Your task to perform on an android device: Clear the shopping cart on walmart.com. Add "dell xps" to the cart on walmart.com Image 0: 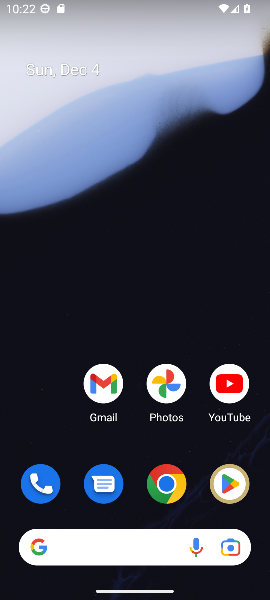
Step 0: click (163, 490)
Your task to perform on an android device: Clear the shopping cart on walmart.com. Add "dell xps" to the cart on walmart.com Image 1: 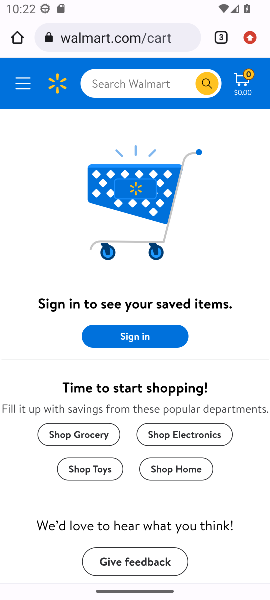
Step 1: click (244, 80)
Your task to perform on an android device: Clear the shopping cart on walmart.com. Add "dell xps" to the cart on walmart.com Image 2: 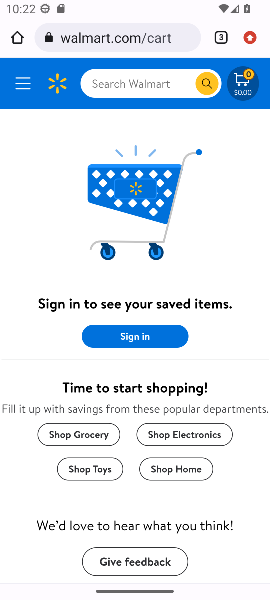
Step 2: click (105, 87)
Your task to perform on an android device: Clear the shopping cart on walmart.com. Add "dell xps" to the cart on walmart.com Image 3: 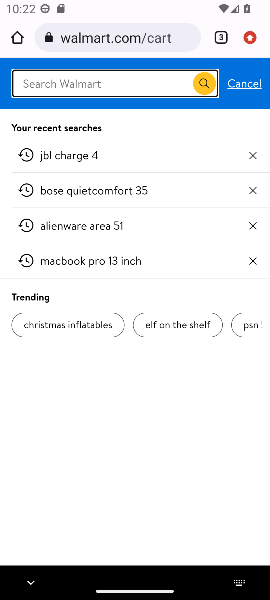
Step 3: type "dell xps"
Your task to perform on an android device: Clear the shopping cart on walmart.com. Add "dell xps" to the cart on walmart.com Image 4: 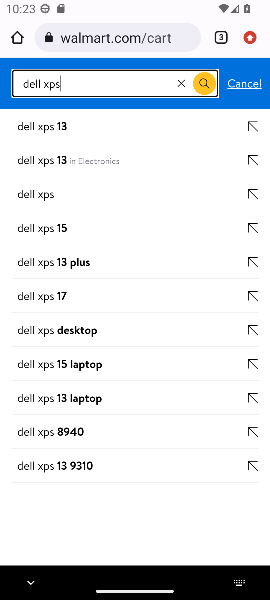
Step 4: click (43, 201)
Your task to perform on an android device: Clear the shopping cart on walmart.com. Add "dell xps" to the cart on walmart.com Image 5: 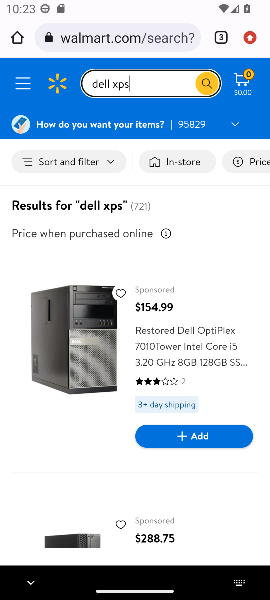
Step 5: drag from (79, 389) to (105, 184)
Your task to perform on an android device: Clear the shopping cart on walmart.com. Add "dell xps" to the cart on walmart.com Image 6: 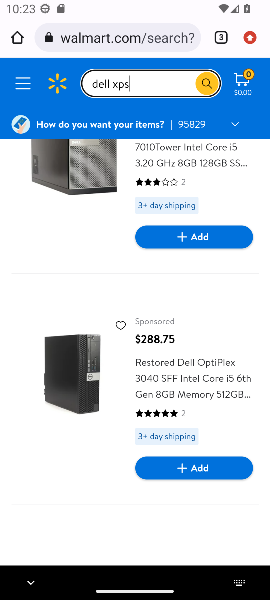
Step 6: drag from (85, 445) to (124, 212)
Your task to perform on an android device: Clear the shopping cart on walmart.com. Add "dell xps" to the cart on walmart.com Image 7: 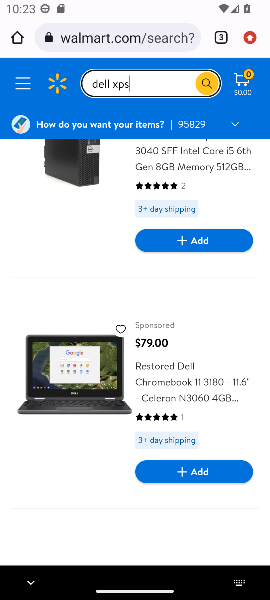
Step 7: drag from (95, 453) to (110, 199)
Your task to perform on an android device: Clear the shopping cart on walmart.com. Add "dell xps" to the cart on walmart.com Image 8: 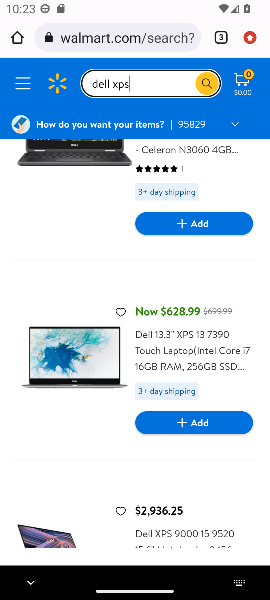
Step 8: drag from (90, 436) to (91, 287)
Your task to perform on an android device: Clear the shopping cart on walmart.com. Add "dell xps" to the cart on walmart.com Image 9: 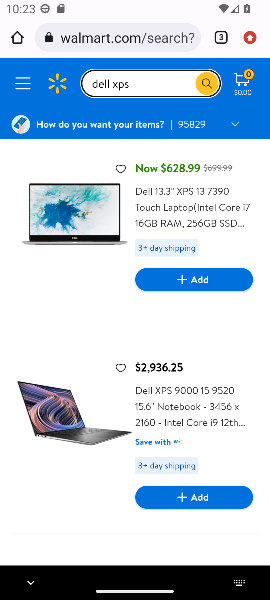
Step 9: click (196, 274)
Your task to perform on an android device: Clear the shopping cart on walmart.com. Add "dell xps" to the cart on walmart.com Image 10: 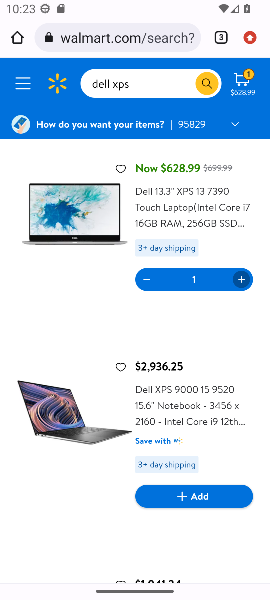
Step 10: task complete